Your task to perform on an android device: Show me recent news Image 0: 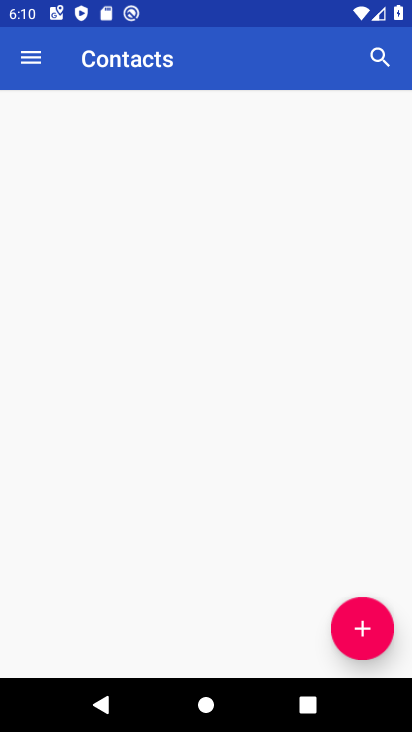
Step 0: drag from (254, 379) to (378, 477)
Your task to perform on an android device: Show me recent news Image 1: 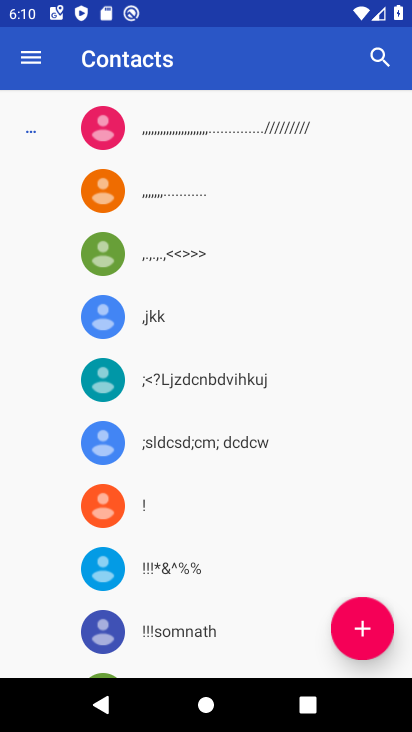
Step 1: press home button
Your task to perform on an android device: Show me recent news Image 2: 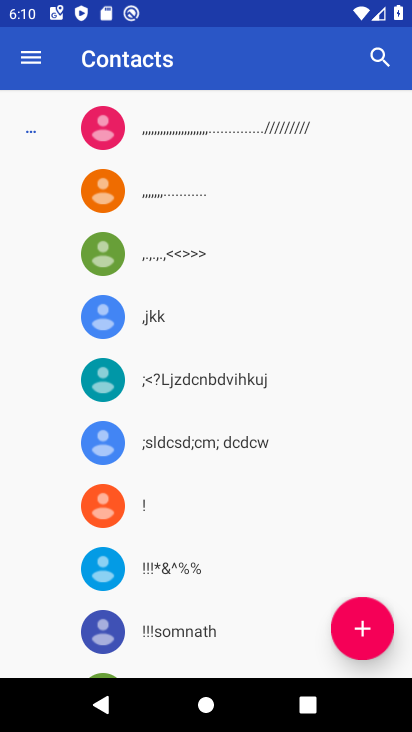
Step 2: click (174, 726)
Your task to perform on an android device: Show me recent news Image 3: 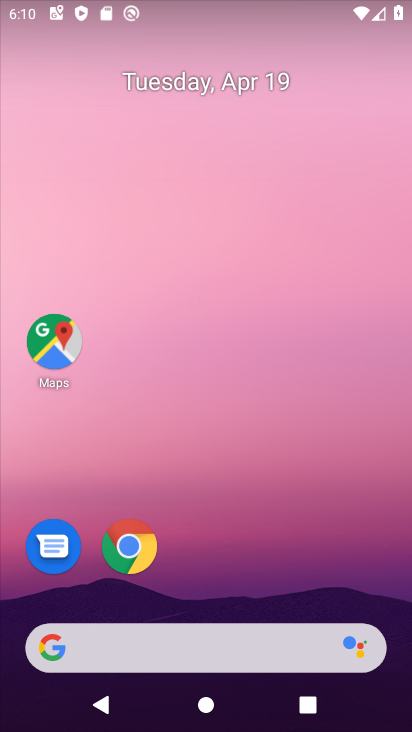
Step 3: drag from (286, 573) to (300, 53)
Your task to perform on an android device: Show me recent news Image 4: 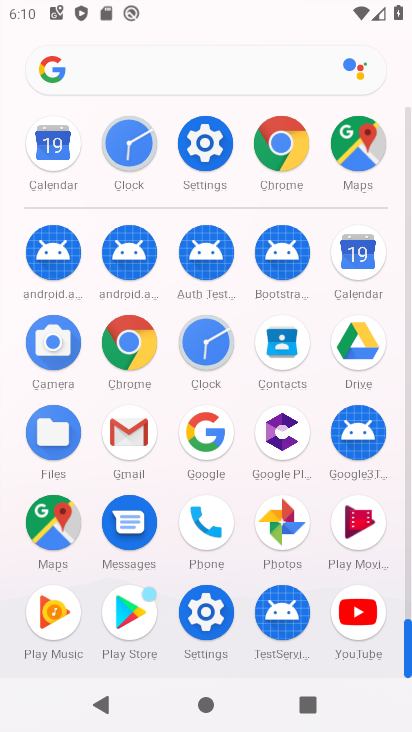
Step 4: click (138, 354)
Your task to perform on an android device: Show me recent news Image 5: 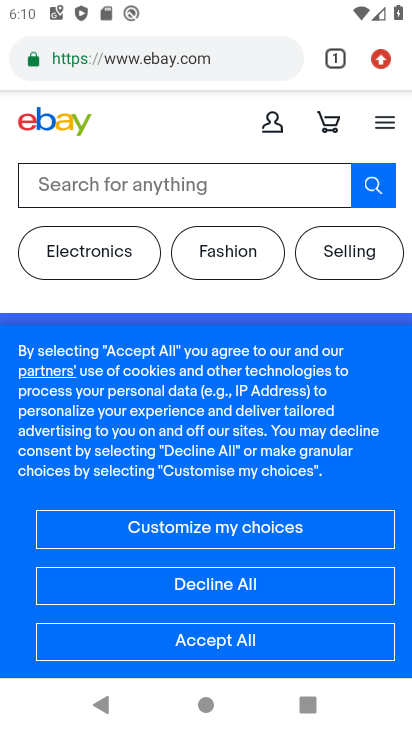
Step 5: click (109, 56)
Your task to perform on an android device: Show me recent news Image 6: 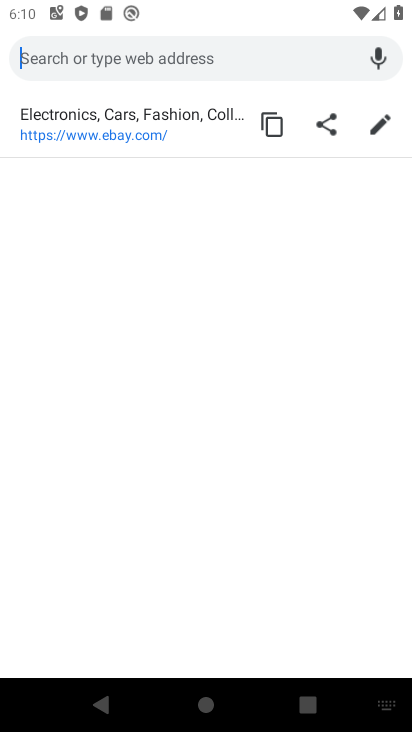
Step 6: type "news"
Your task to perform on an android device: Show me recent news Image 7: 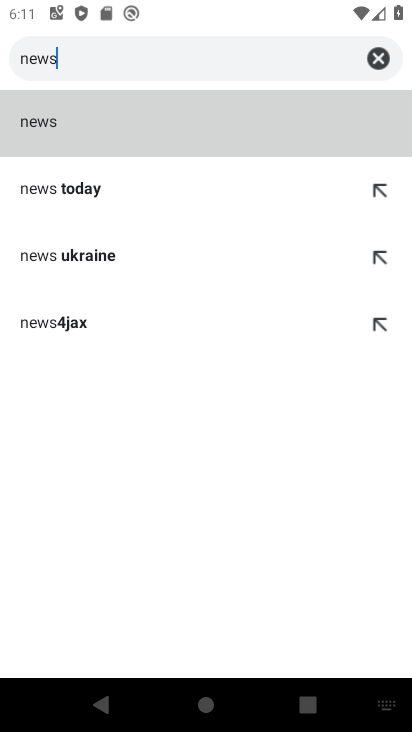
Step 7: click (59, 104)
Your task to perform on an android device: Show me recent news Image 8: 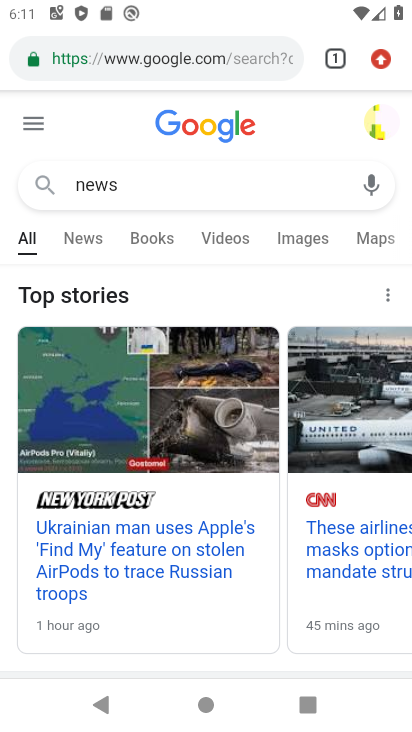
Step 8: click (87, 233)
Your task to perform on an android device: Show me recent news Image 9: 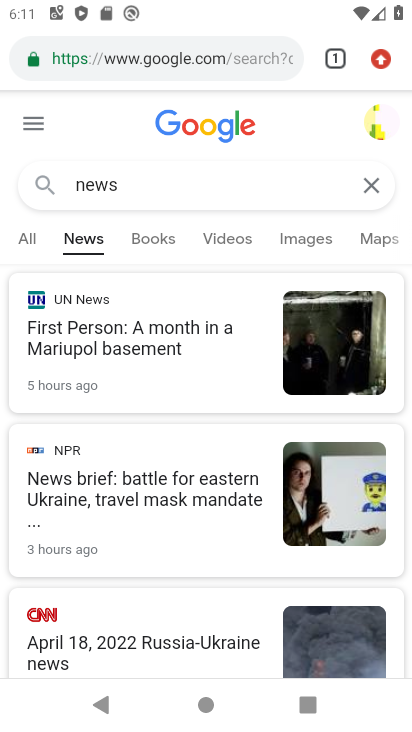
Step 9: task complete